Your task to perform on an android device: turn off data saver in the chrome app Image 0: 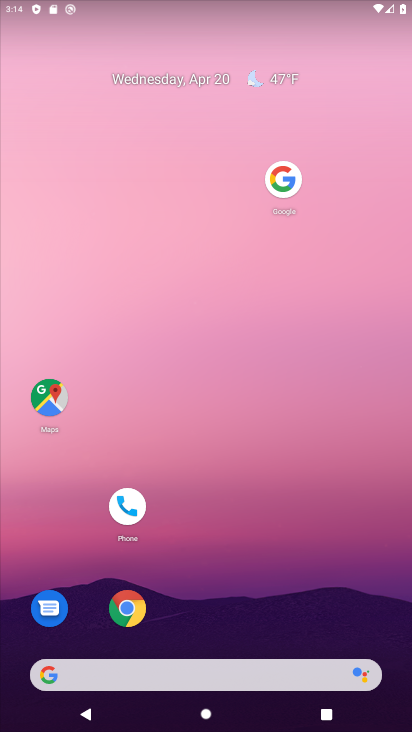
Step 0: click (358, 13)
Your task to perform on an android device: turn off data saver in the chrome app Image 1: 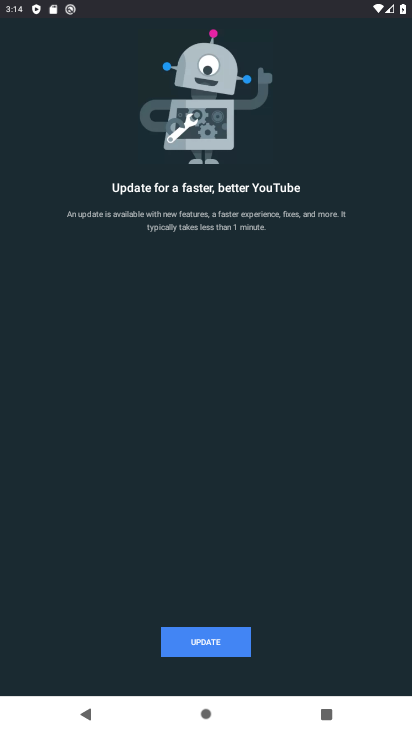
Step 1: press home button
Your task to perform on an android device: turn off data saver in the chrome app Image 2: 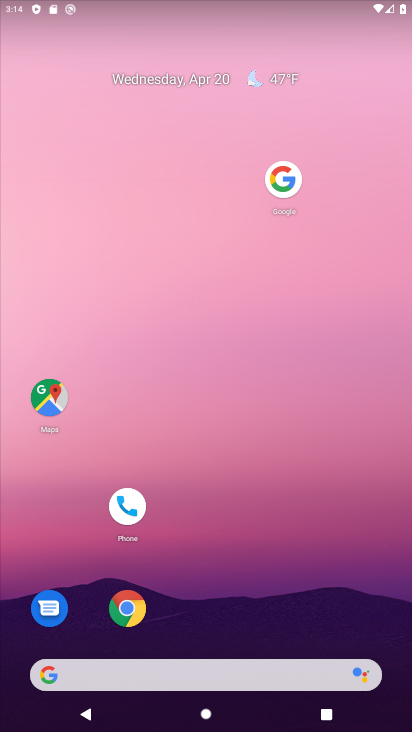
Step 2: click (122, 607)
Your task to perform on an android device: turn off data saver in the chrome app Image 3: 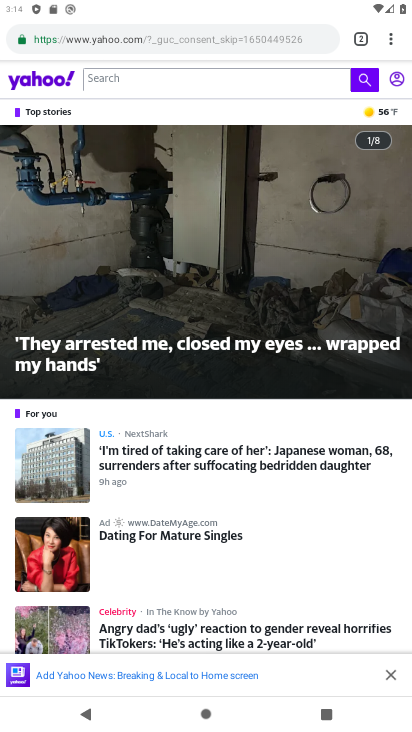
Step 3: drag from (387, 32) to (239, 508)
Your task to perform on an android device: turn off data saver in the chrome app Image 4: 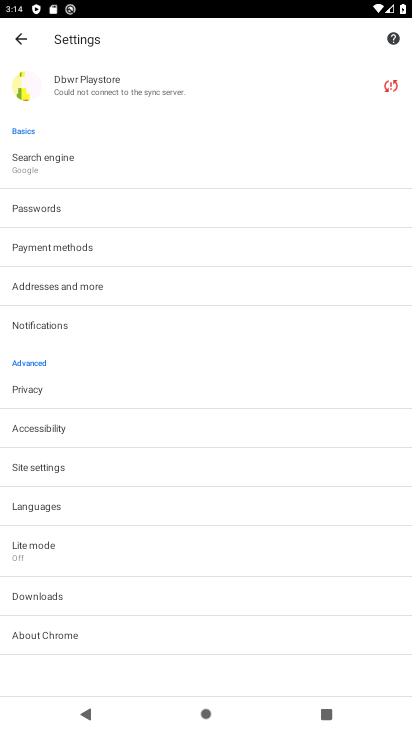
Step 4: click (60, 462)
Your task to perform on an android device: turn off data saver in the chrome app Image 5: 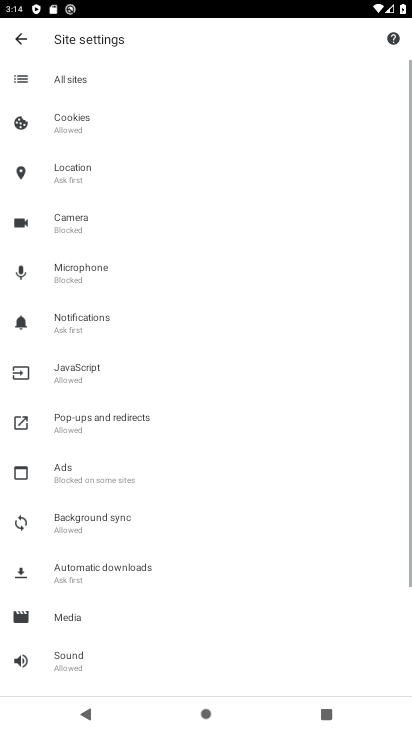
Step 5: click (15, 38)
Your task to perform on an android device: turn off data saver in the chrome app Image 6: 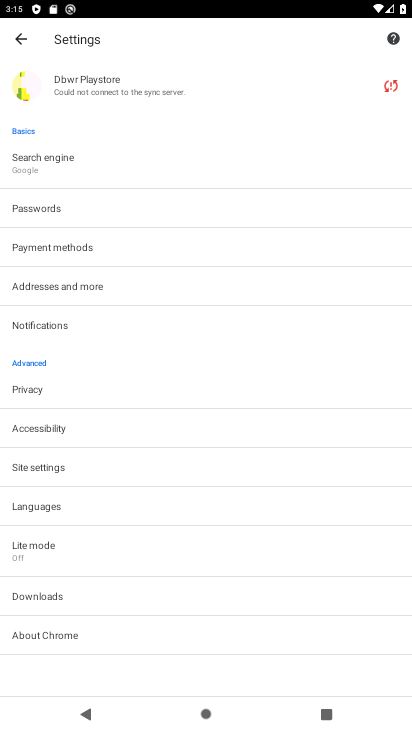
Step 6: drag from (119, 537) to (186, 340)
Your task to perform on an android device: turn off data saver in the chrome app Image 7: 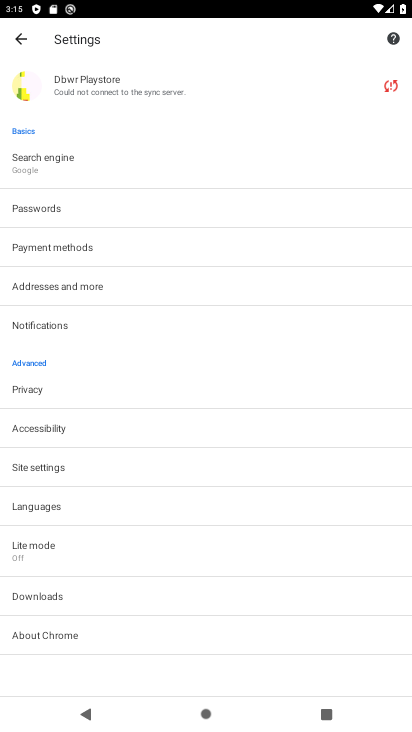
Step 7: click (30, 552)
Your task to perform on an android device: turn off data saver in the chrome app Image 8: 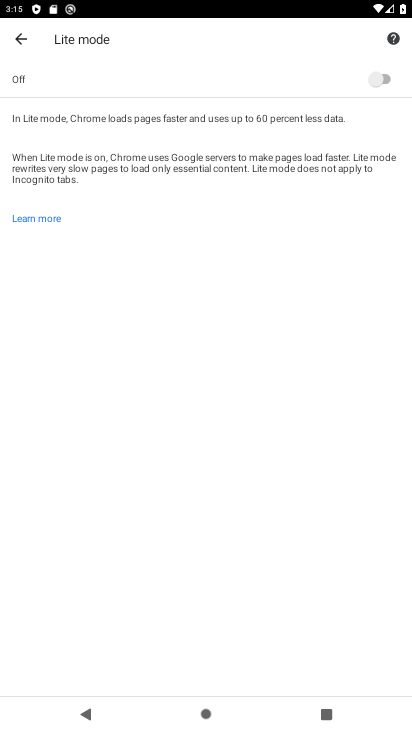
Step 8: task complete